Your task to perform on an android device: Show me productivity apps on the Play Store Image 0: 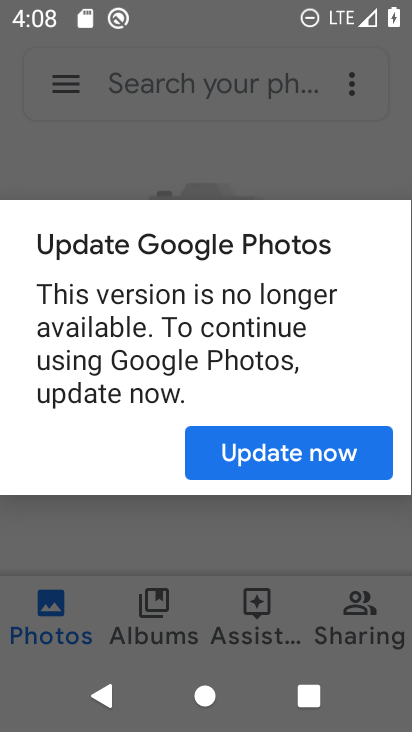
Step 0: press back button
Your task to perform on an android device: Show me productivity apps on the Play Store Image 1: 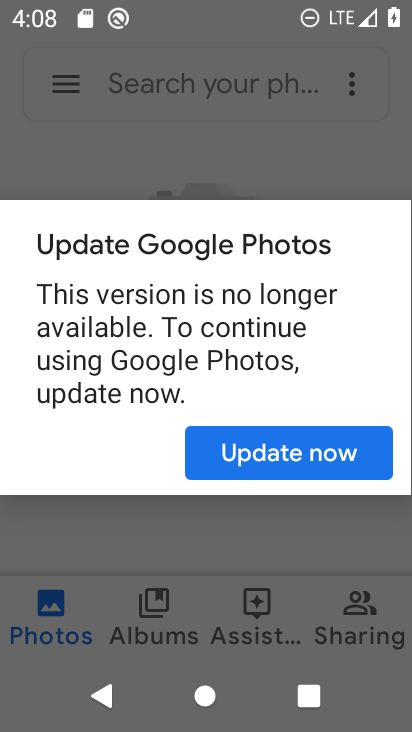
Step 1: press home button
Your task to perform on an android device: Show me productivity apps on the Play Store Image 2: 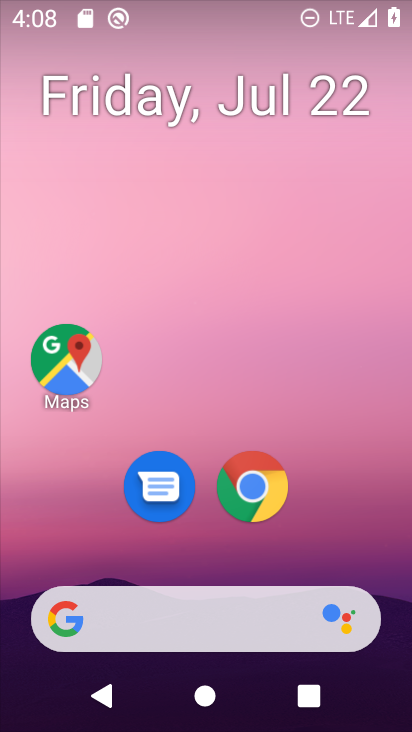
Step 2: drag from (176, 551) to (237, 0)
Your task to perform on an android device: Show me productivity apps on the Play Store Image 3: 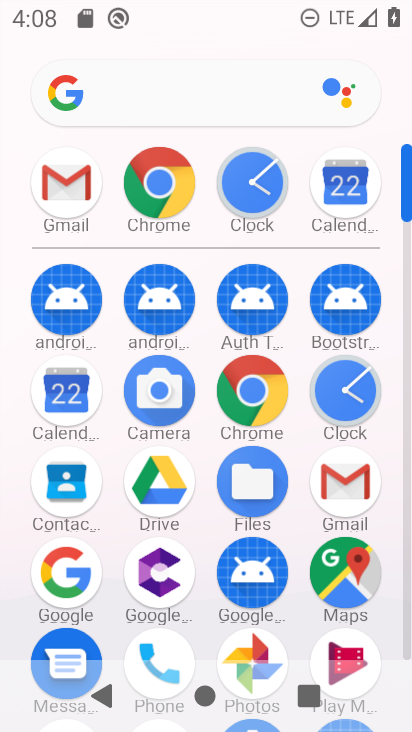
Step 3: drag from (206, 637) to (288, 198)
Your task to perform on an android device: Show me productivity apps on the Play Store Image 4: 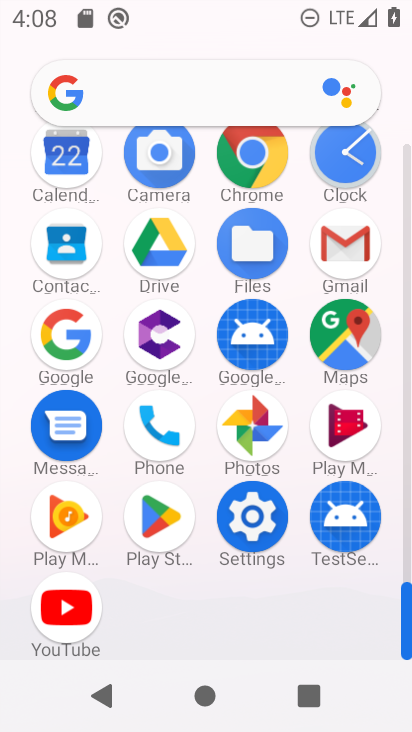
Step 4: click (156, 528)
Your task to perform on an android device: Show me productivity apps on the Play Store Image 5: 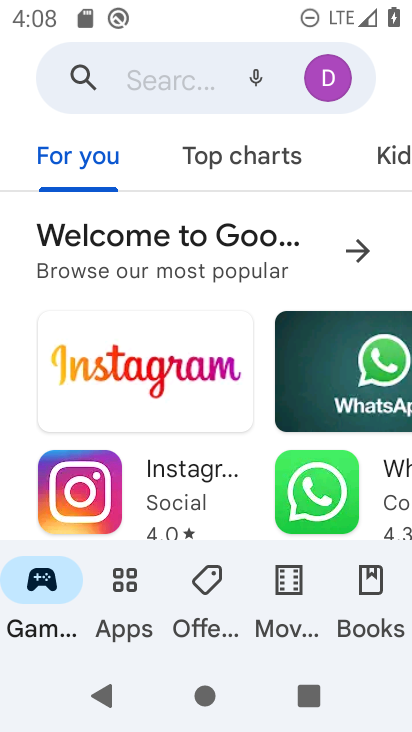
Step 5: click (127, 587)
Your task to perform on an android device: Show me productivity apps on the Play Store Image 6: 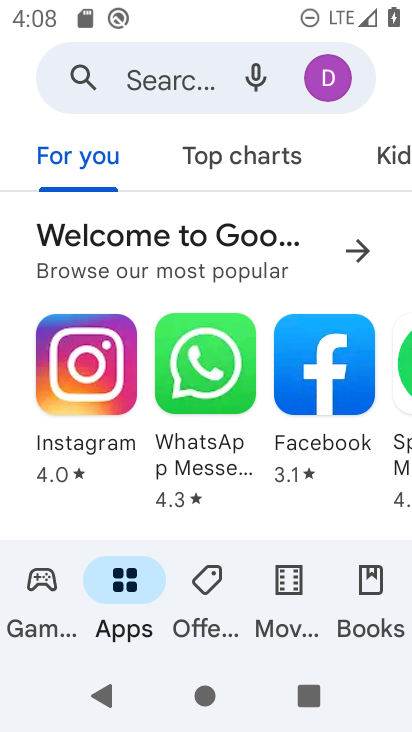
Step 6: drag from (195, 431) to (262, 148)
Your task to perform on an android device: Show me productivity apps on the Play Store Image 7: 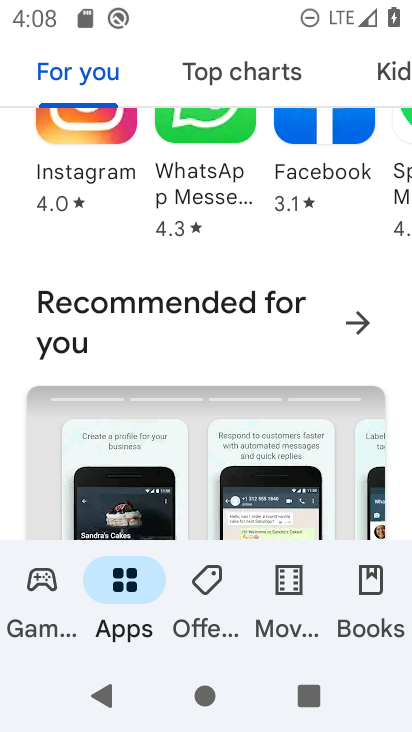
Step 7: drag from (224, 460) to (270, 35)
Your task to perform on an android device: Show me productivity apps on the Play Store Image 8: 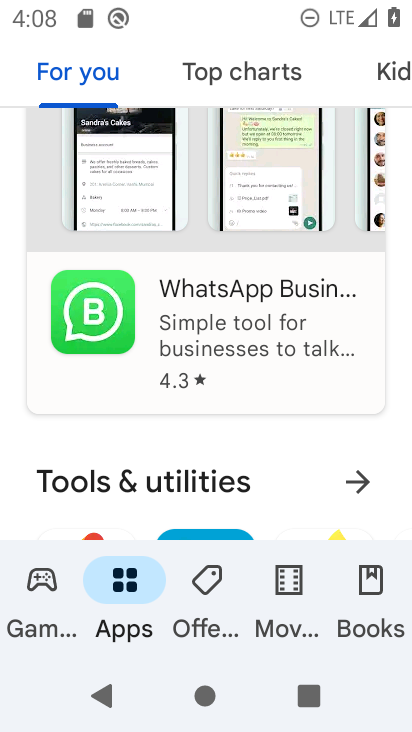
Step 8: drag from (183, 402) to (245, 5)
Your task to perform on an android device: Show me productivity apps on the Play Store Image 9: 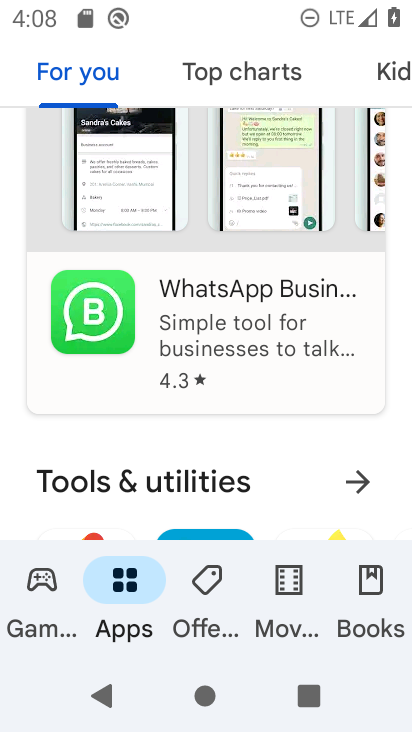
Step 9: drag from (150, 456) to (241, 56)
Your task to perform on an android device: Show me productivity apps on the Play Store Image 10: 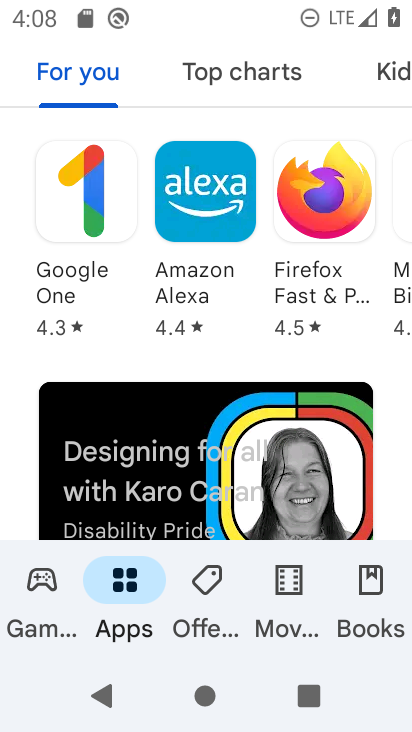
Step 10: drag from (148, 452) to (310, 17)
Your task to perform on an android device: Show me productivity apps on the Play Store Image 11: 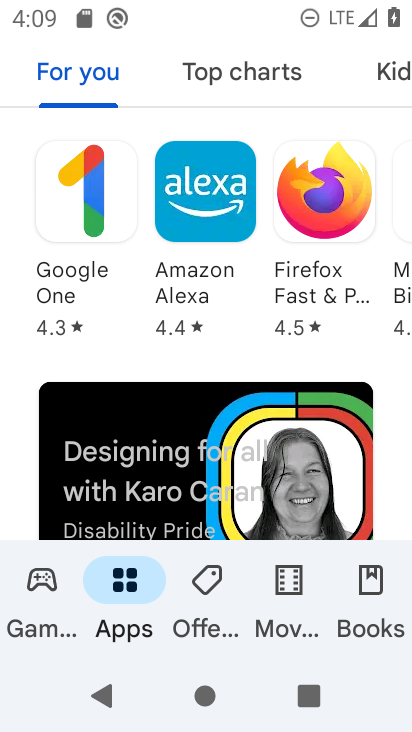
Step 11: drag from (4, 506) to (102, 50)
Your task to perform on an android device: Show me productivity apps on the Play Store Image 12: 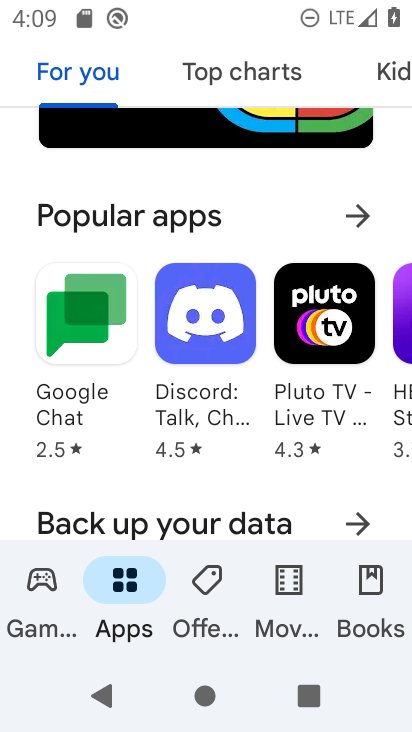
Step 12: drag from (20, 489) to (75, 66)
Your task to perform on an android device: Show me productivity apps on the Play Store Image 13: 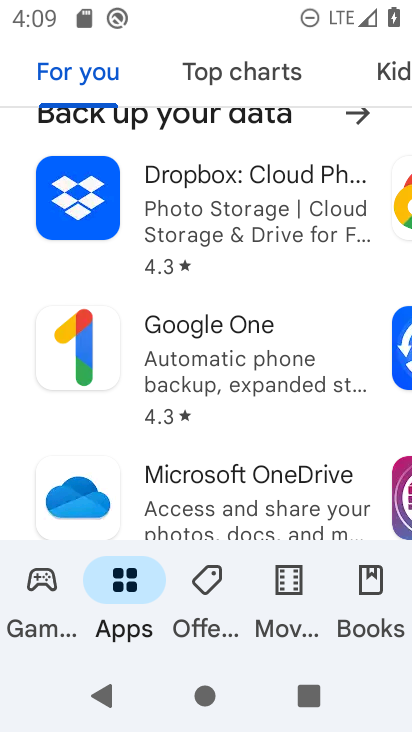
Step 13: drag from (16, 525) to (48, 69)
Your task to perform on an android device: Show me productivity apps on the Play Store Image 14: 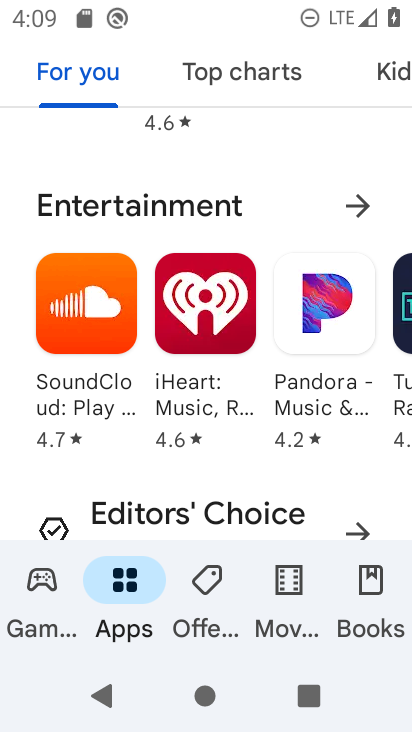
Step 14: drag from (10, 505) to (28, 67)
Your task to perform on an android device: Show me productivity apps on the Play Store Image 15: 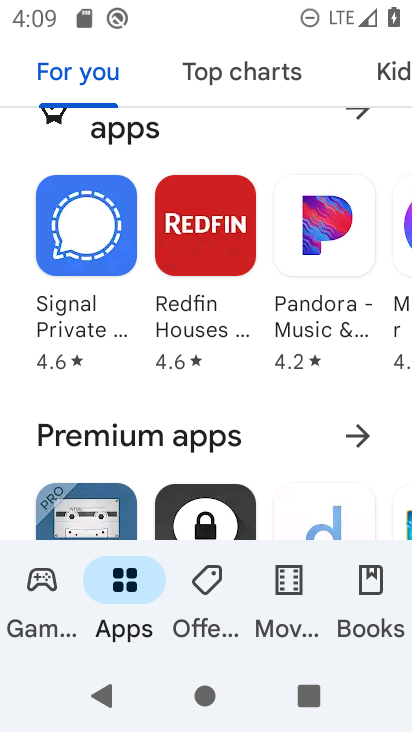
Step 15: drag from (25, 526) to (51, 26)
Your task to perform on an android device: Show me productivity apps on the Play Store Image 16: 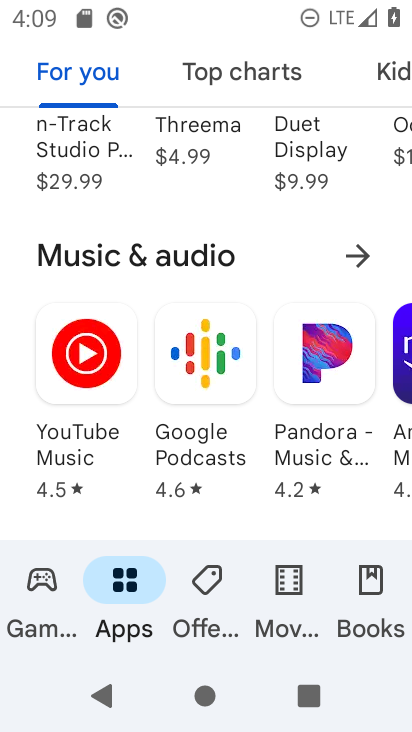
Step 16: drag from (3, 521) to (19, 77)
Your task to perform on an android device: Show me productivity apps on the Play Store Image 17: 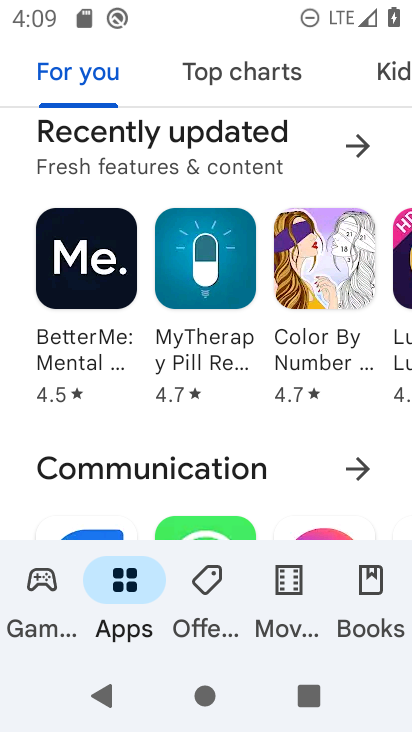
Step 17: drag from (26, 464) to (26, 32)
Your task to perform on an android device: Show me productivity apps on the Play Store Image 18: 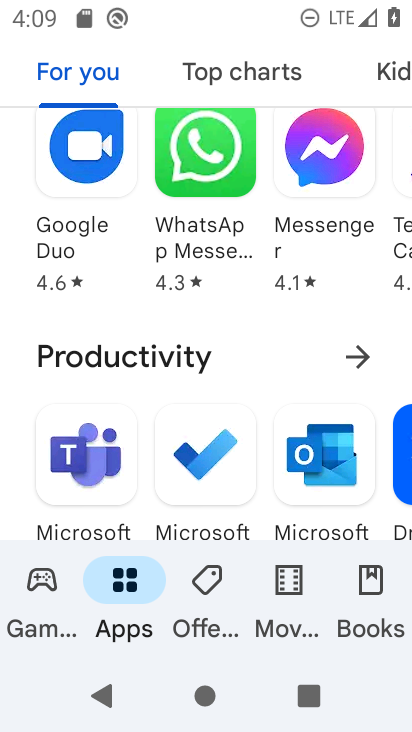
Step 18: click (361, 355)
Your task to perform on an android device: Show me productivity apps on the Play Store Image 19: 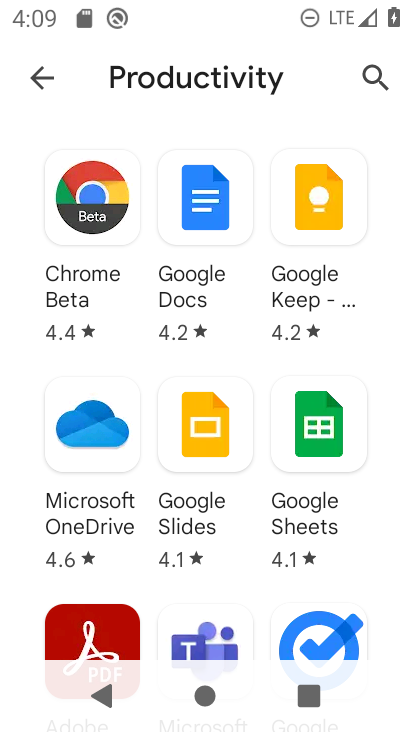
Step 19: task complete